Your task to perform on an android device: Open notification settings Image 0: 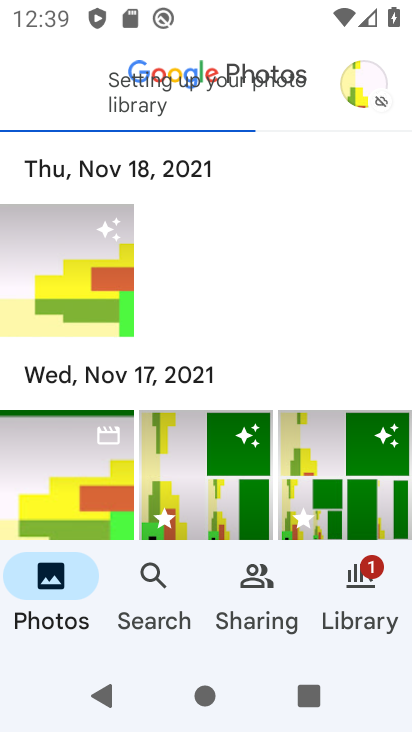
Step 0: press home button
Your task to perform on an android device: Open notification settings Image 1: 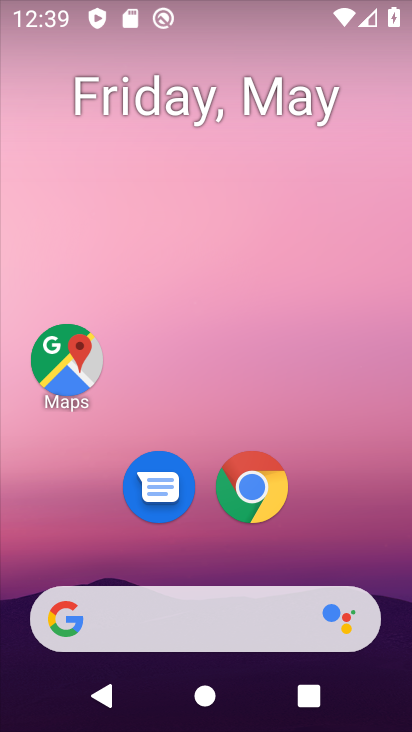
Step 1: drag from (134, 584) to (219, 107)
Your task to perform on an android device: Open notification settings Image 2: 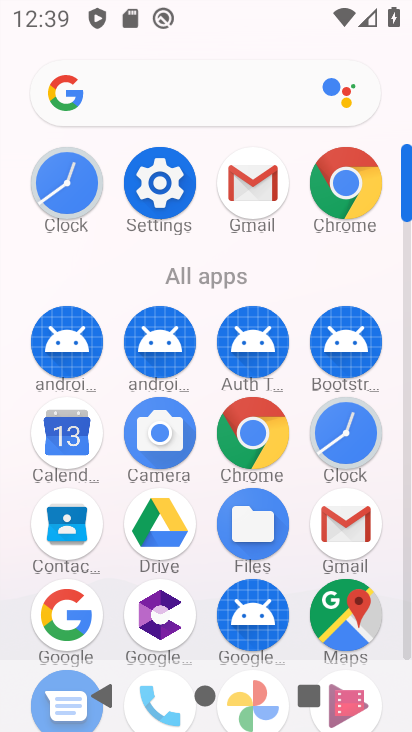
Step 2: drag from (199, 619) to (245, 337)
Your task to perform on an android device: Open notification settings Image 3: 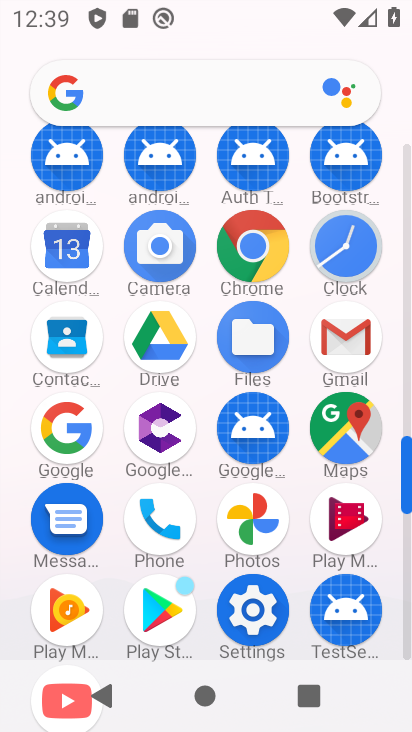
Step 3: click (245, 619)
Your task to perform on an android device: Open notification settings Image 4: 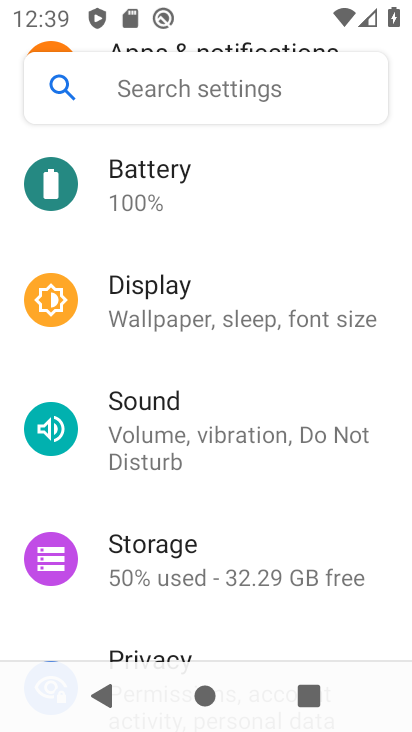
Step 4: drag from (186, 599) to (194, 687)
Your task to perform on an android device: Open notification settings Image 5: 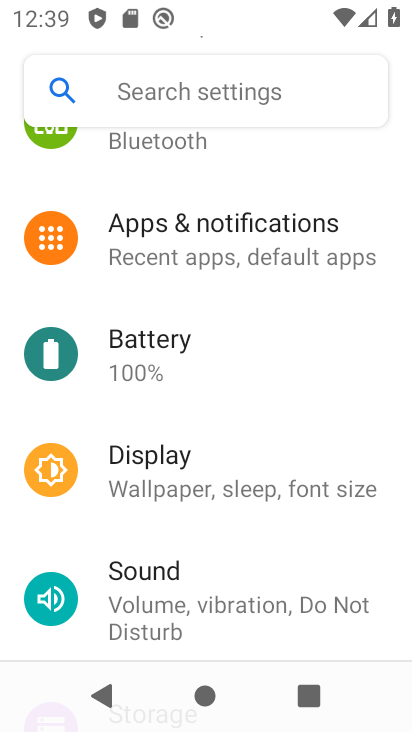
Step 5: drag from (293, 295) to (264, 453)
Your task to perform on an android device: Open notification settings Image 6: 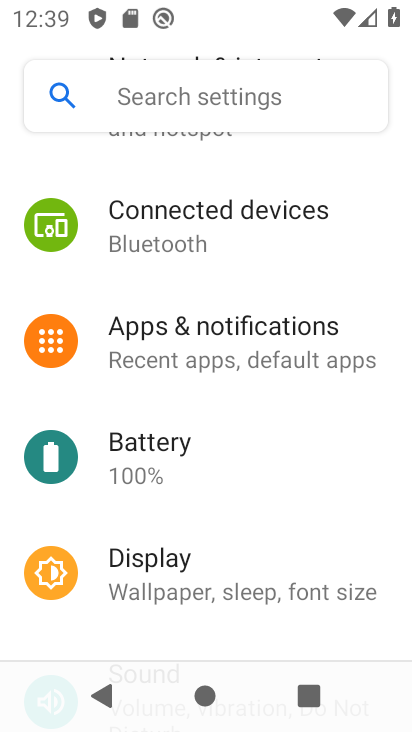
Step 6: click (241, 371)
Your task to perform on an android device: Open notification settings Image 7: 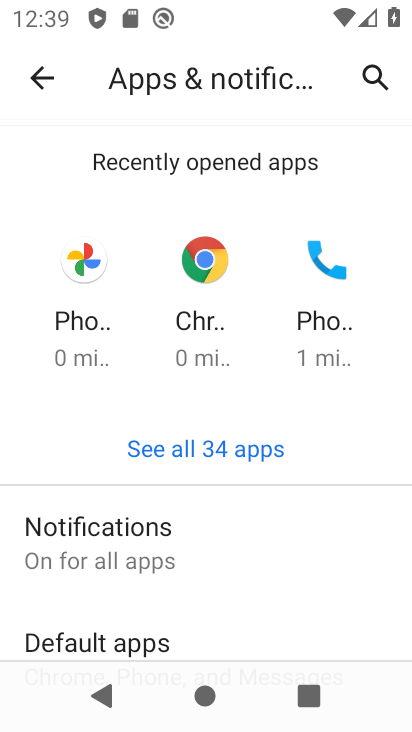
Step 7: click (235, 563)
Your task to perform on an android device: Open notification settings Image 8: 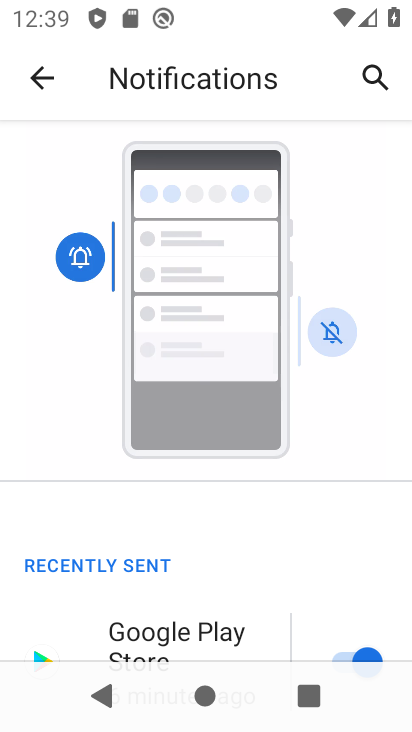
Step 8: task complete